Your task to perform on an android device: toggle wifi Image 0: 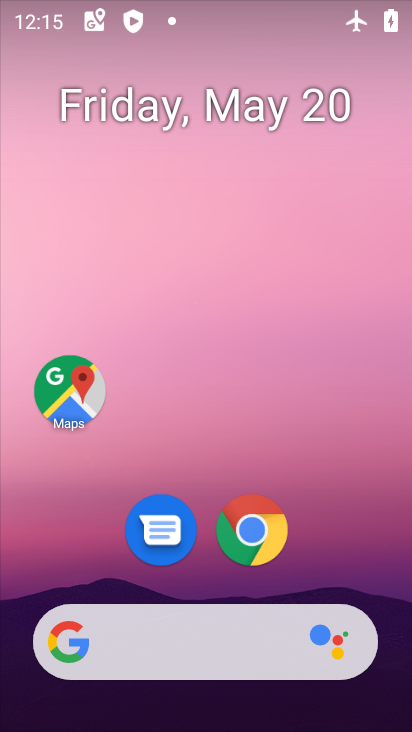
Step 0: drag from (207, 624) to (271, 191)
Your task to perform on an android device: toggle wifi Image 1: 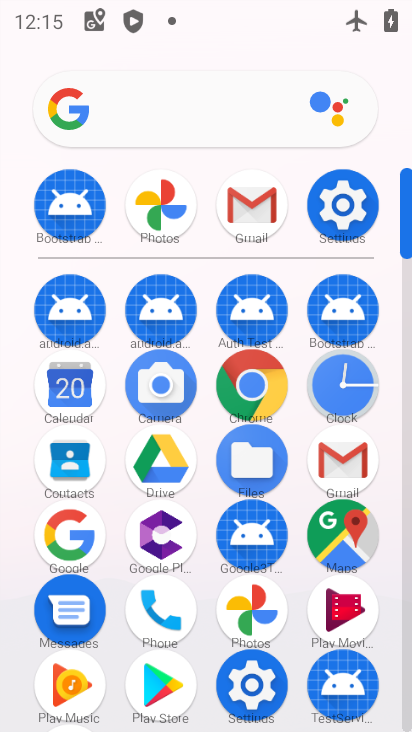
Step 1: click (333, 208)
Your task to perform on an android device: toggle wifi Image 2: 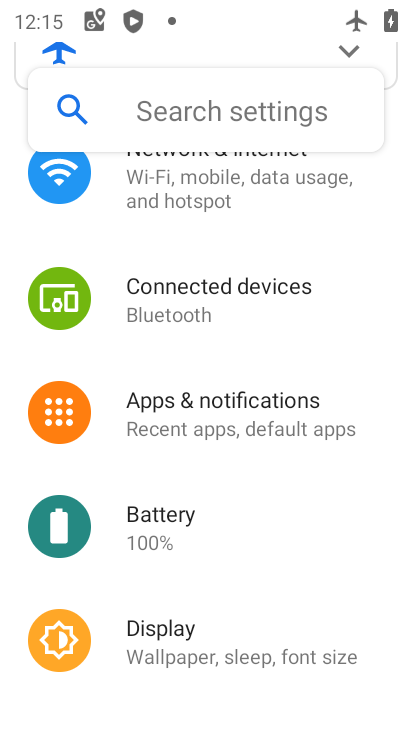
Step 2: drag from (274, 237) to (292, 618)
Your task to perform on an android device: toggle wifi Image 3: 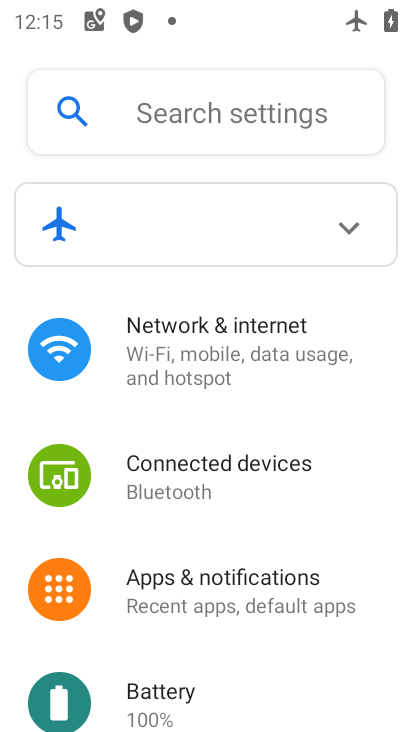
Step 3: click (231, 375)
Your task to perform on an android device: toggle wifi Image 4: 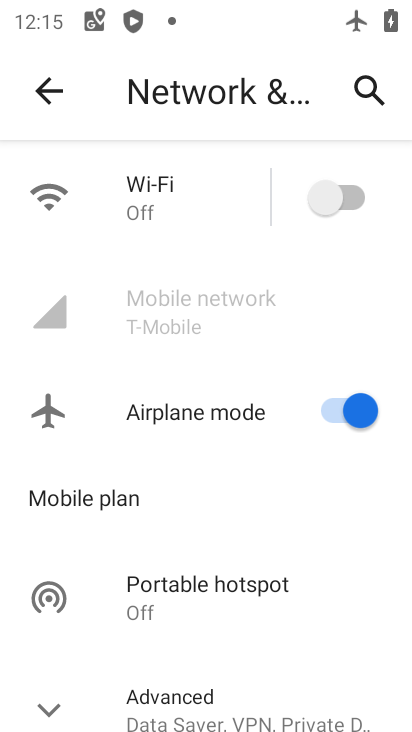
Step 4: click (349, 191)
Your task to perform on an android device: toggle wifi Image 5: 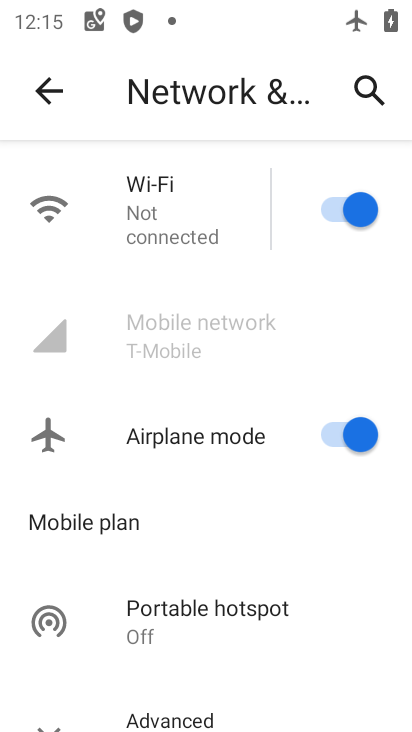
Step 5: task complete